Your task to perform on an android device: Go to battery settings Image 0: 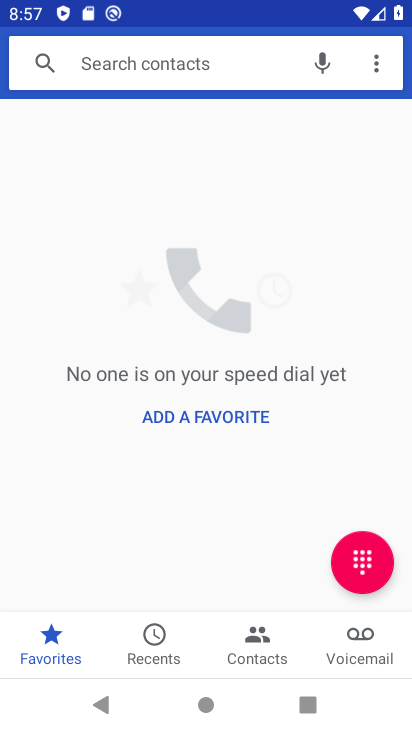
Step 0: press home button
Your task to perform on an android device: Go to battery settings Image 1: 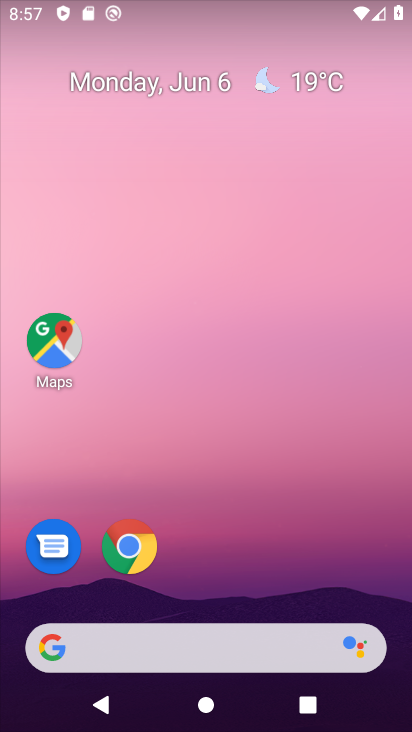
Step 1: drag from (157, 725) to (280, 80)
Your task to perform on an android device: Go to battery settings Image 2: 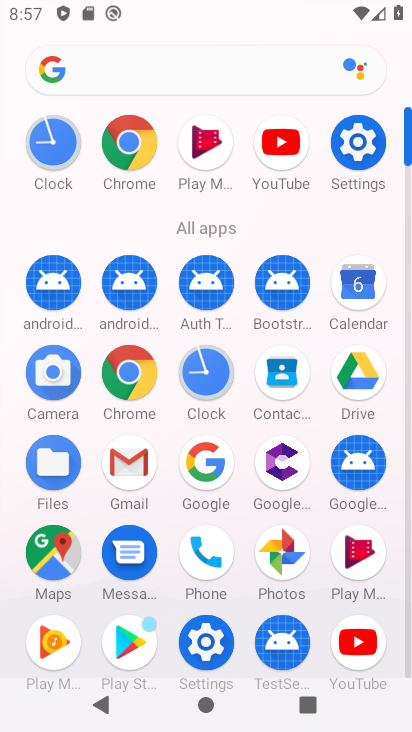
Step 2: click (372, 140)
Your task to perform on an android device: Go to battery settings Image 3: 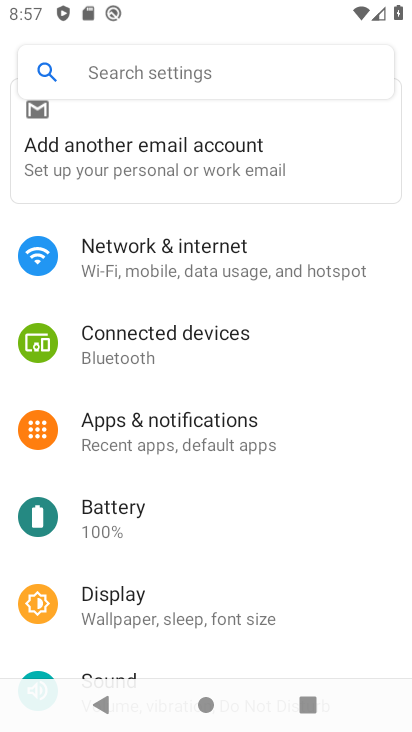
Step 3: click (132, 505)
Your task to perform on an android device: Go to battery settings Image 4: 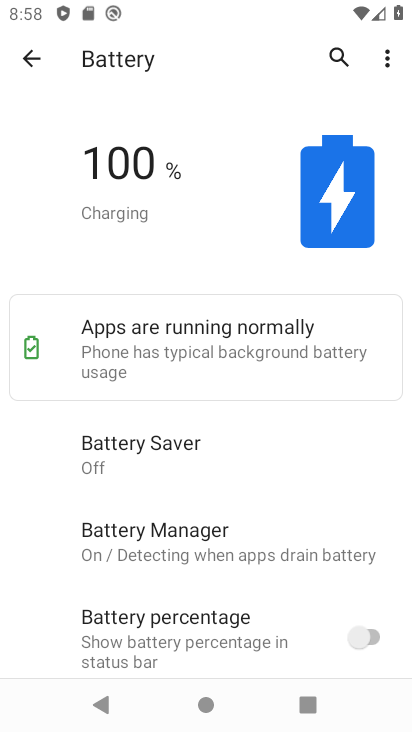
Step 4: task complete